Your task to perform on an android device: remove spam from my inbox in the gmail app Image 0: 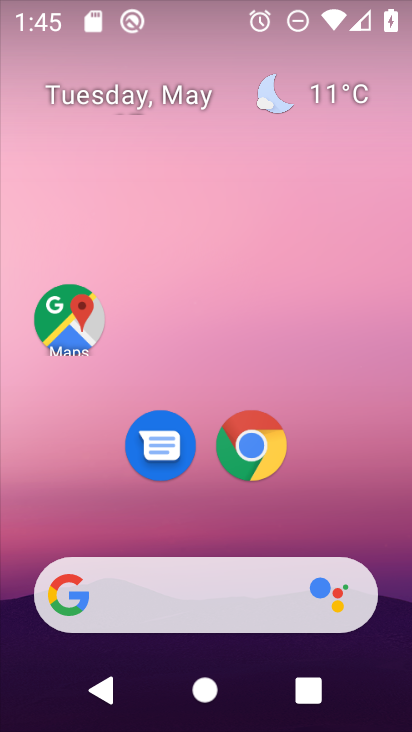
Step 0: drag from (356, 493) to (332, 184)
Your task to perform on an android device: remove spam from my inbox in the gmail app Image 1: 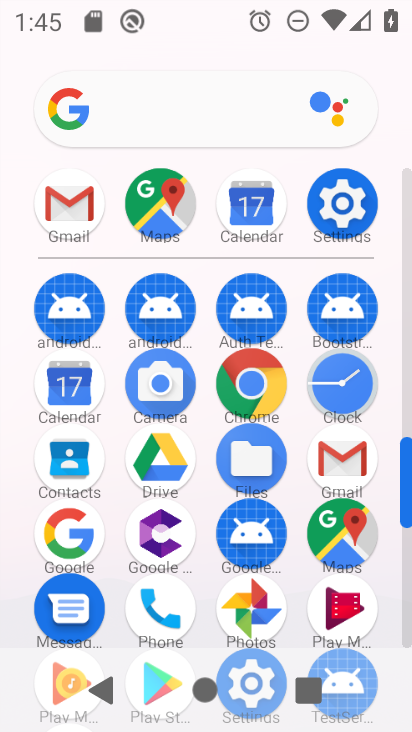
Step 1: click (349, 454)
Your task to perform on an android device: remove spam from my inbox in the gmail app Image 2: 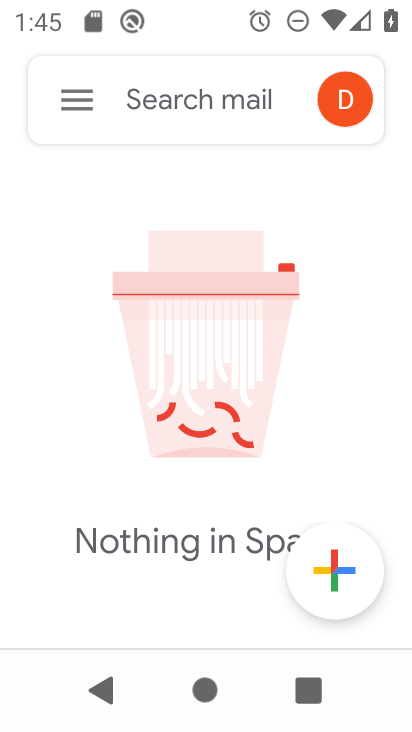
Step 2: task complete